Your task to perform on an android device: Go to battery settings Image 0: 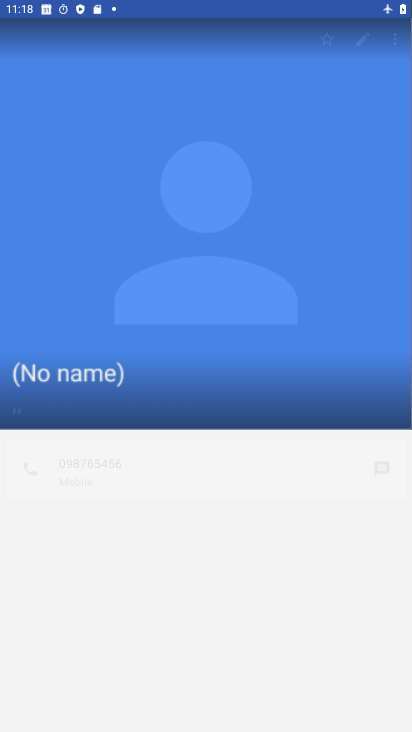
Step 0: drag from (214, 674) to (226, 171)
Your task to perform on an android device: Go to battery settings Image 1: 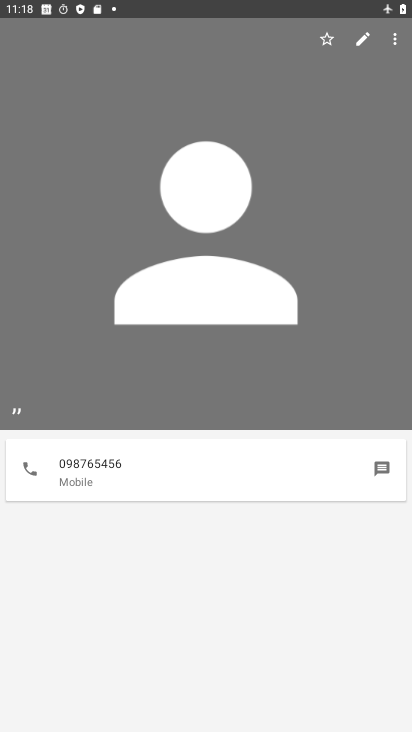
Step 1: press home button
Your task to perform on an android device: Go to battery settings Image 2: 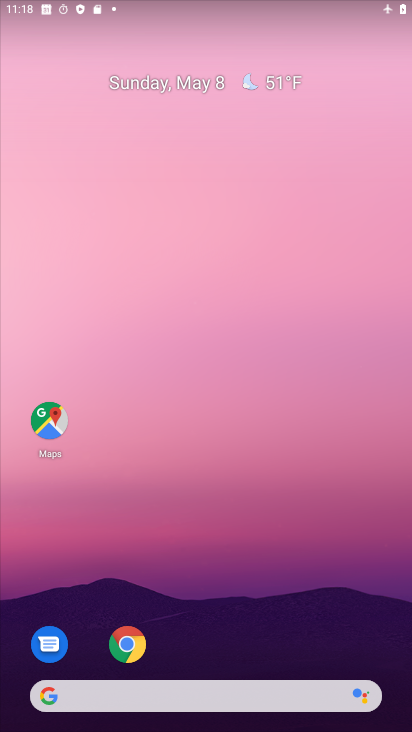
Step 2: drag from (199, 561) to (302, 82)
Your task to perform on an android device: Go to battery settings Image 3: 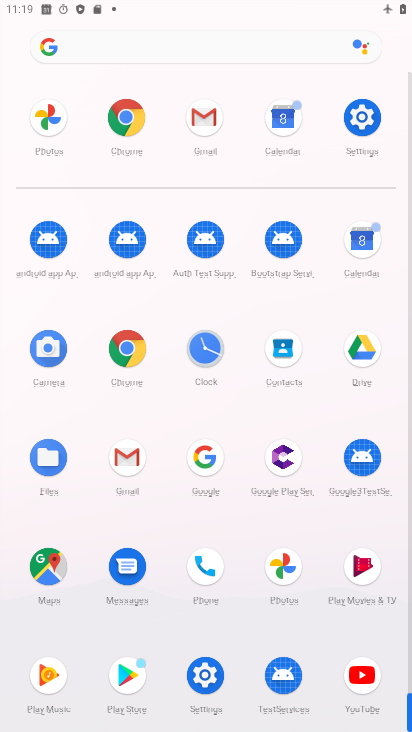
Step 3: click (358, 116)
Your task to perform on an android device: Go to battery settings Image 4: 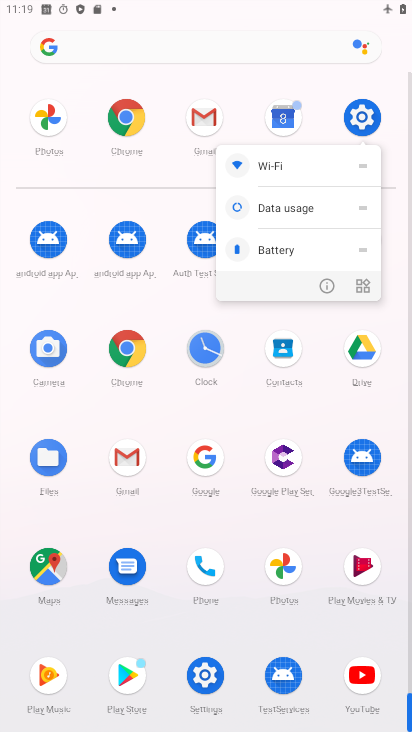
Step 4: click (330, 284)
Your task to perform on an android device: Go to battery settings Image 5: 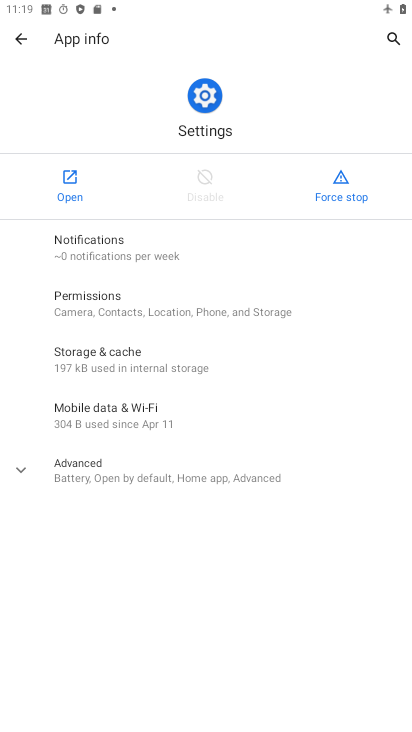
Step 5: click (66, 204)
Your task to perform on an android device: Go to battery settings Image 6: 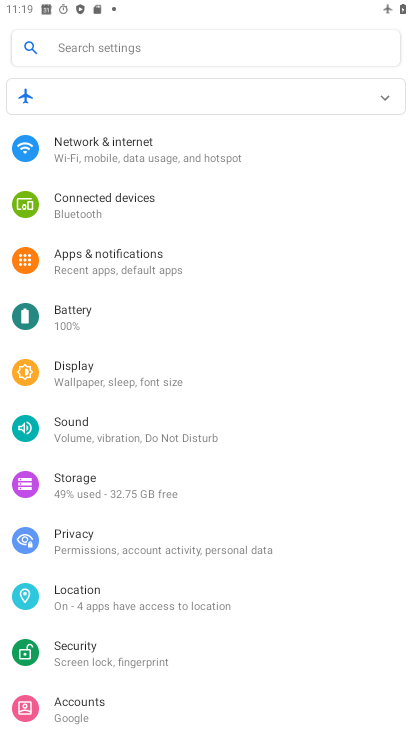
Step 6: click (115, 321)
Your task to perform on an android device: Go to battery settings Image 7: 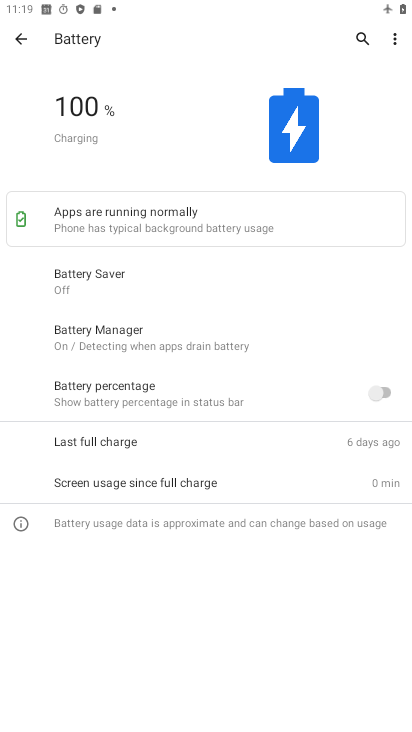
Step 7: task complete